Your task to perform on an android device: Go to Yahoo.com Image 0: 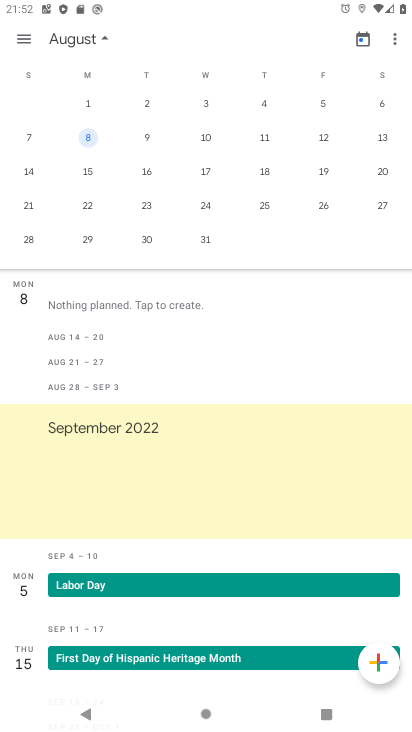
Step 0: press home button
Your task to perform on an android device: Go to Yahoo.com Image 1: 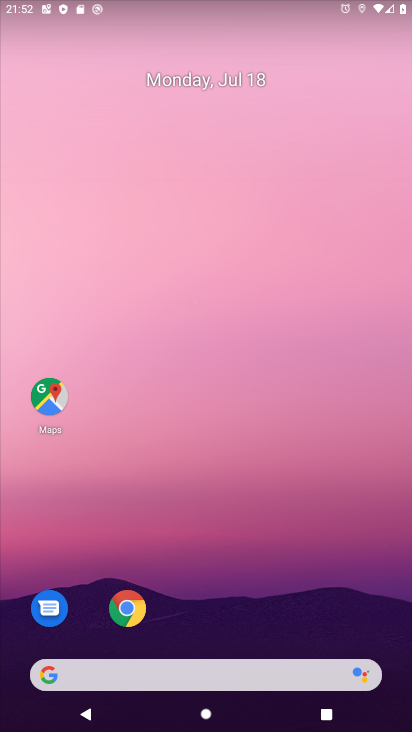
Step 1: click (94, 681)
Your task to perform on an android device: Go to Yahoo.com Image 2: 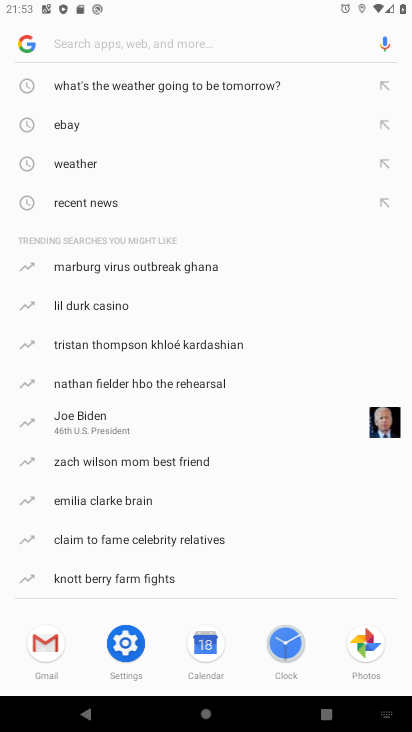
Step 2: type "Yahoo.com"
Your task to perform on an android device: Go to Yahoo.com Image 3: 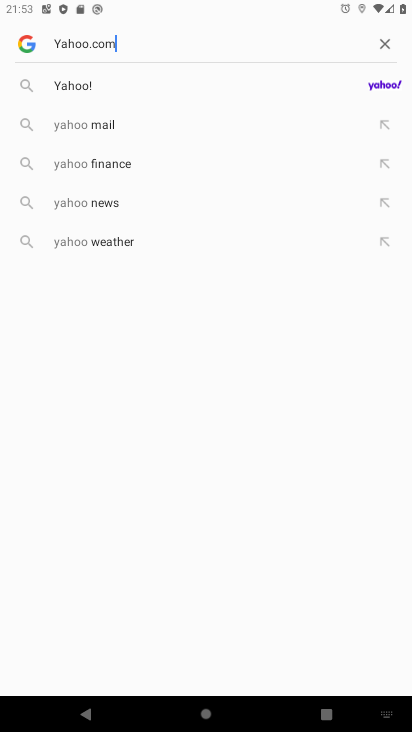
Step 3: type ""
Your task to perform on an android device: Go to Yahoo.com Image 4: 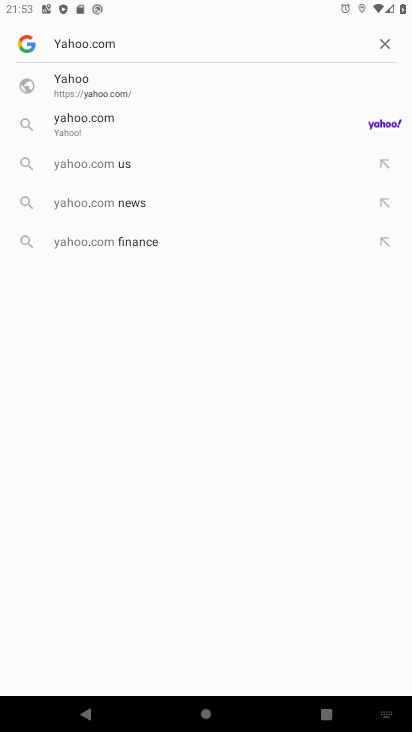
Step 4: click (73, 86)
Your task to perform on an android device: Go to Yahoo.com Image 5: 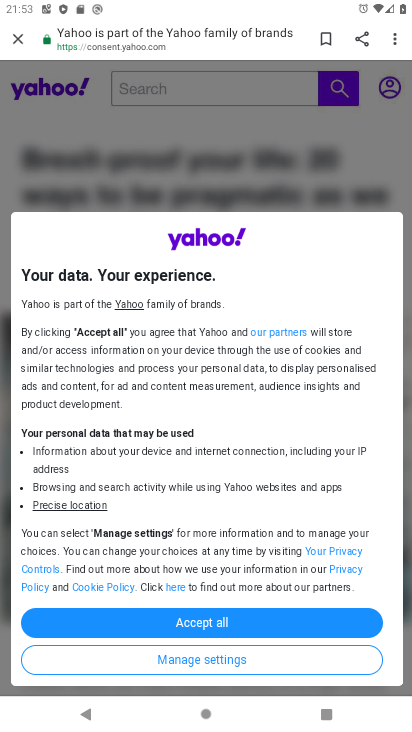
Step 5: task complete